Your task to perform on an android device: visit the assistant section in the google photos Image 0: 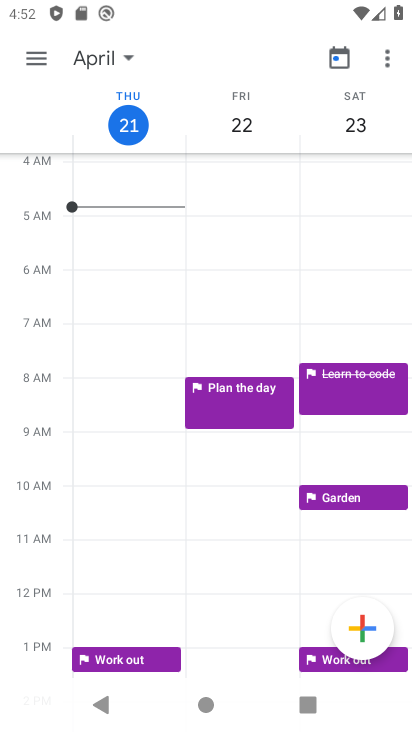
Step 0: press home button
Your task to perform on an android device: visit the assistant section in the google photos Image 1: 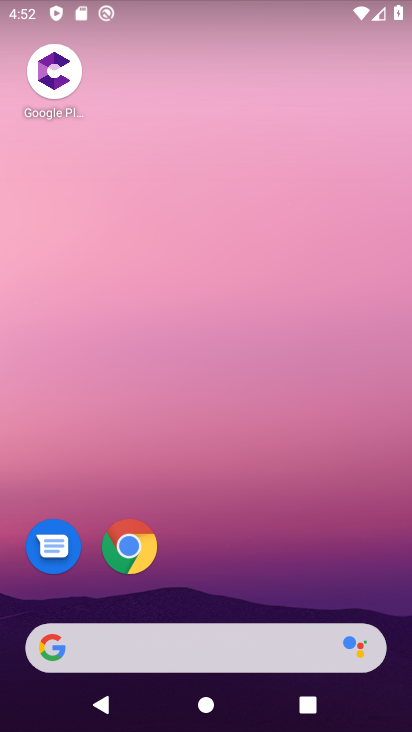
Step 1: drag from (278, 579) to (275, 104)
Your task to perform on an android device: visit the assistant section in the google photos Image 2: 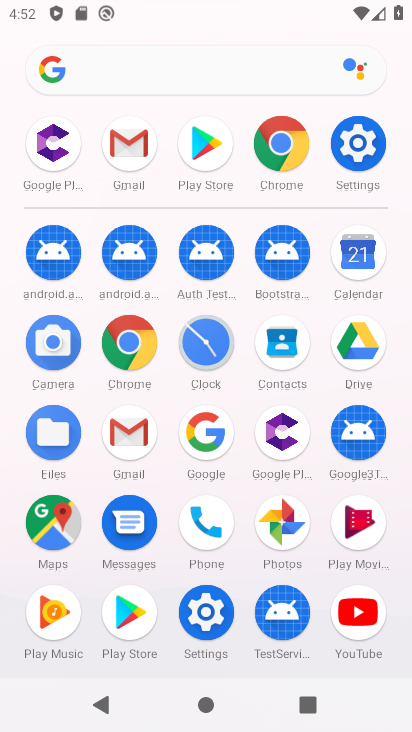
Step 2: click (285, 525)
Your task to perform on an android device: visit the assistant section in the google photos Image 3: 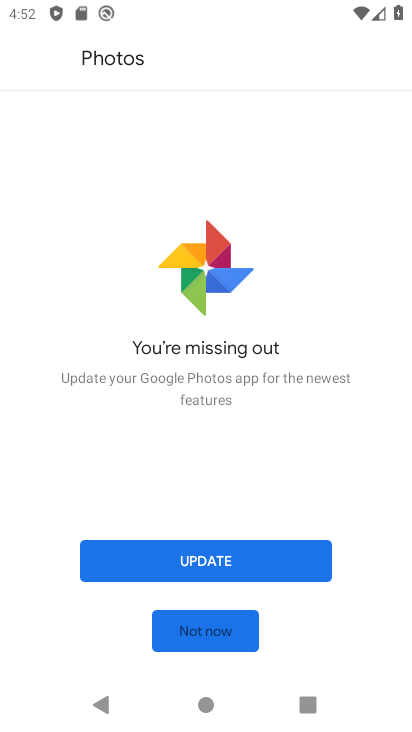
Step 3: click (211, 551)
Your task to perform on an android device: visit the assistant section in the google photos Image 4: 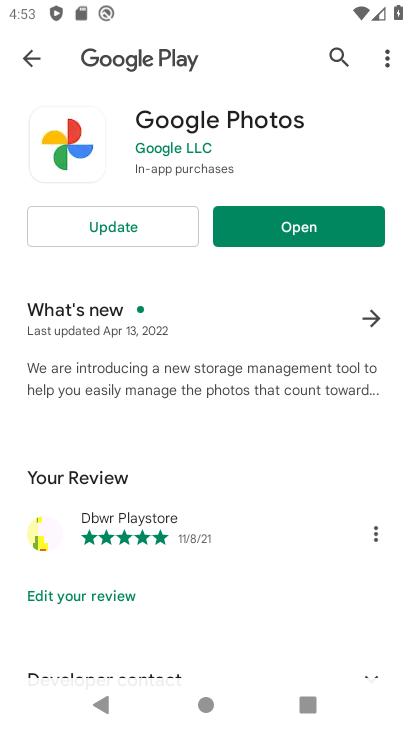
Step 4: click (154, 230)
Your task to perform on an android device: visit the assistant section in the google photos Image 5: 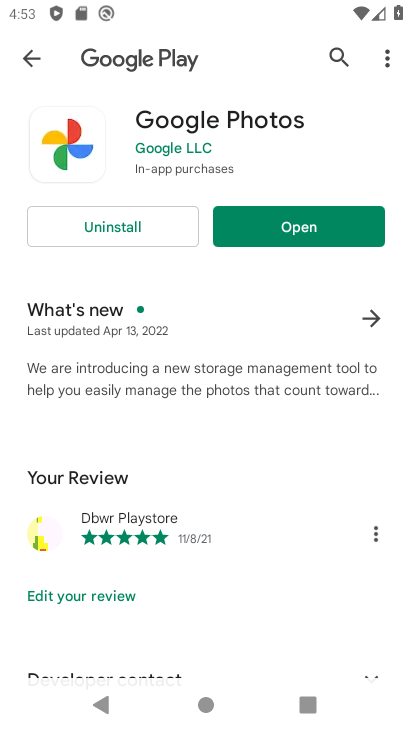
Step 5: click (251, 221)
Your task to perform on an android device: visit the assistant section in the google photos Image 6: 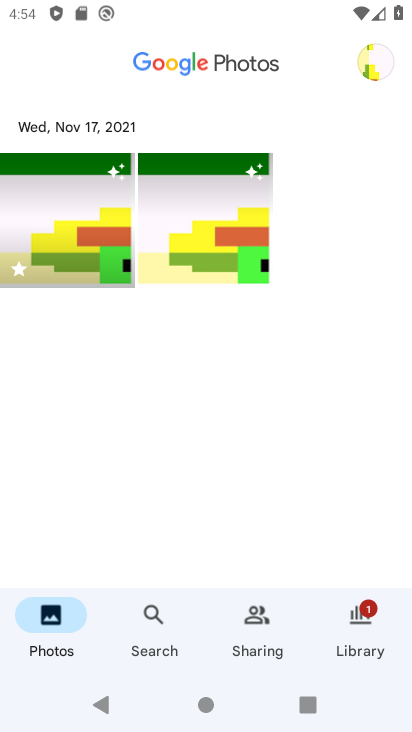
Step 6: click (368, 629)
Your task to perform on an android device: visit the assistant section in the google photos Image 7: 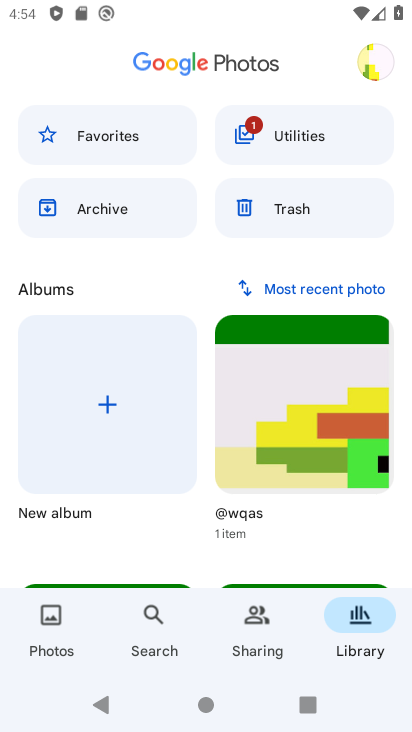
Step 7: click (54, 616)
Your task to perform on an android device: visit the assistant section in the google photos Image 8: 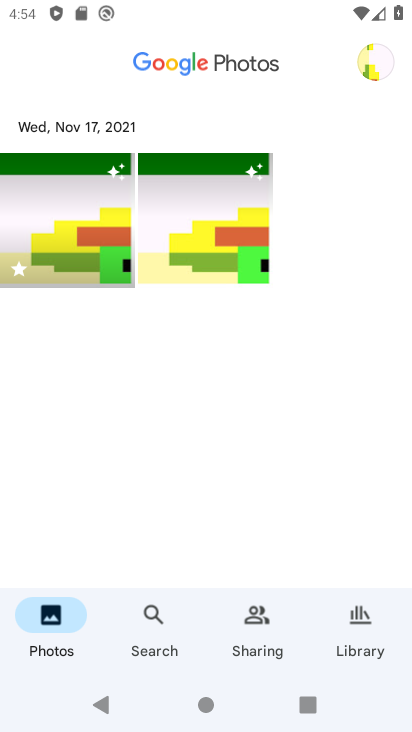
Step 8: click (221, 59)
Your task to perform on an android device: visit the assistant section in the google photos Image 9: 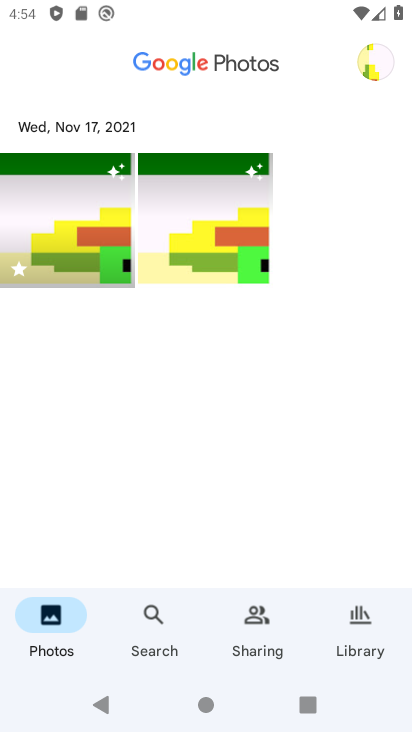
Step 9: click (148, 622)
Your task to perform on an android device: visit the assistant section in the google photos Image 10: 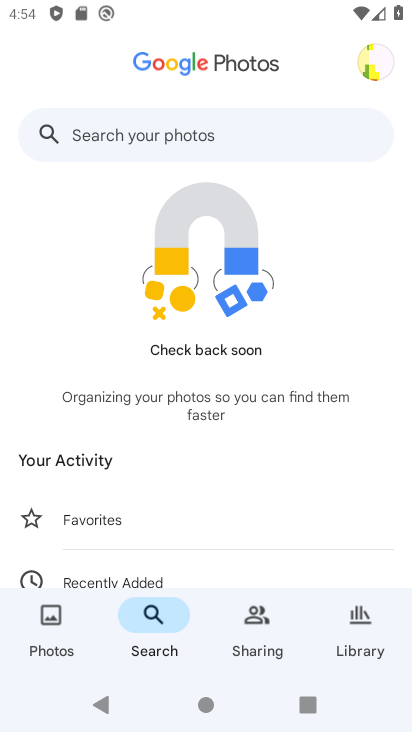
Step 10: drag from (235, 503) to (263, 249)
Your task to perform on an android device: visit the assistant section in the google photos Image 11: 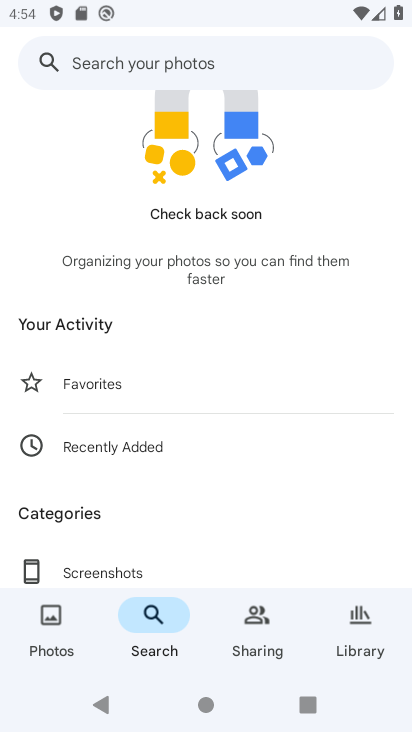
Step 11: drag from (228, 496) to (242, 287)
Your task to perform on an android device: visit the assistant section in the google photos Image 12: 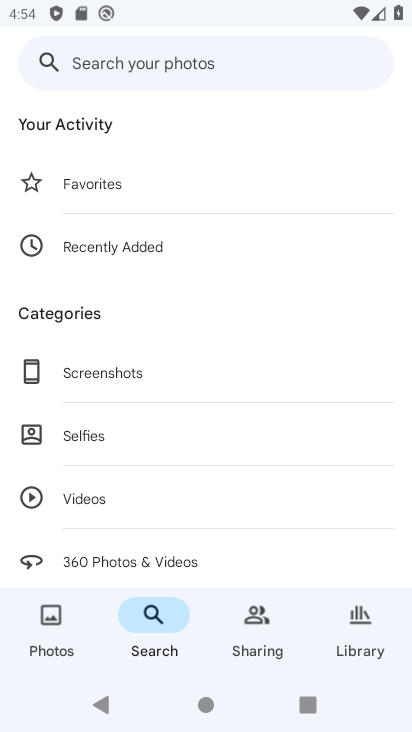
Step 12: drag from (203, 512) to (228, 243)
Your task to perform on an android device: visit the assistant section in the google photos Image 13: 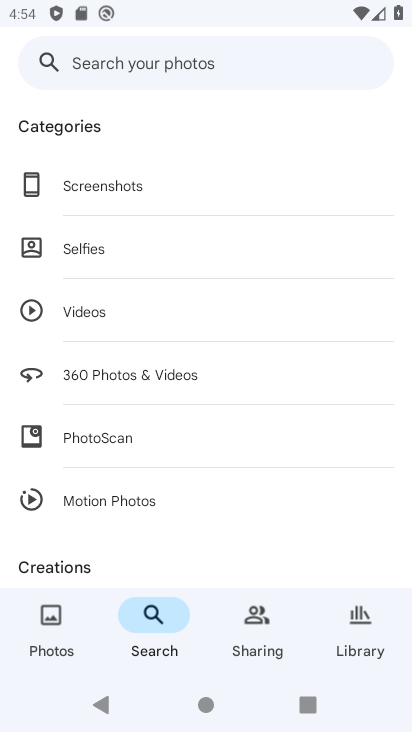
Step 13: drag from (206, 518) to (220, 292)
Your task to perform on an android device: visit the assistant section in the google photos Image 14: 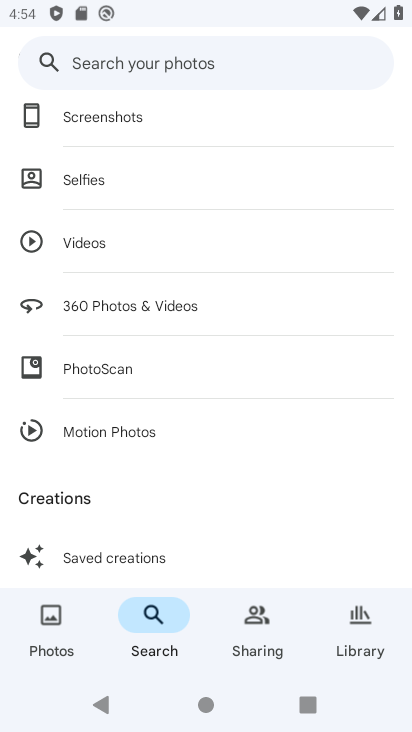
Step 14: drag from (213, 512) to (251, 211)
Your task to perform on an android device: visit the assistant section in the google photos Image 15: 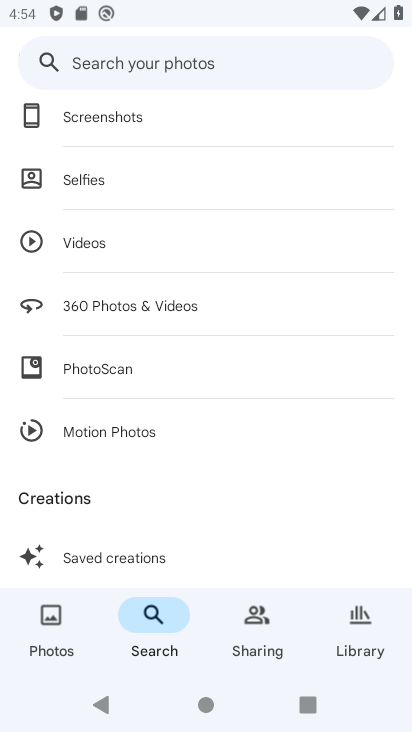
Step 15: drag from (256, 204) to (265, 530)
Your task to perform on an android device: visit the assistant section in the google photos Image 16: 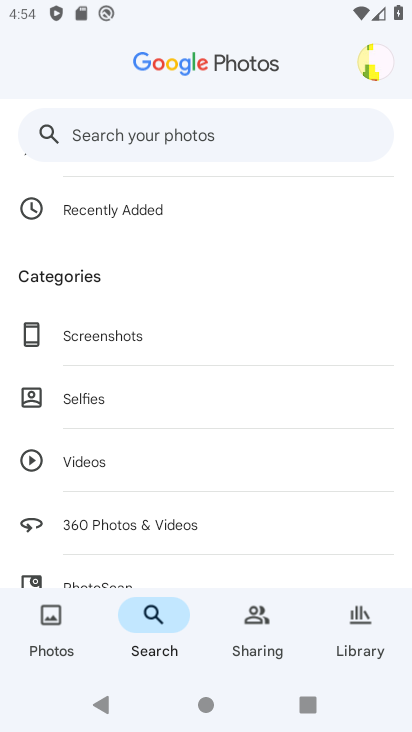
Step 16: drag from (236, 207) to (239, 543)
Your task to perform on an android device: visit the assistant section in the google photos Image 17: 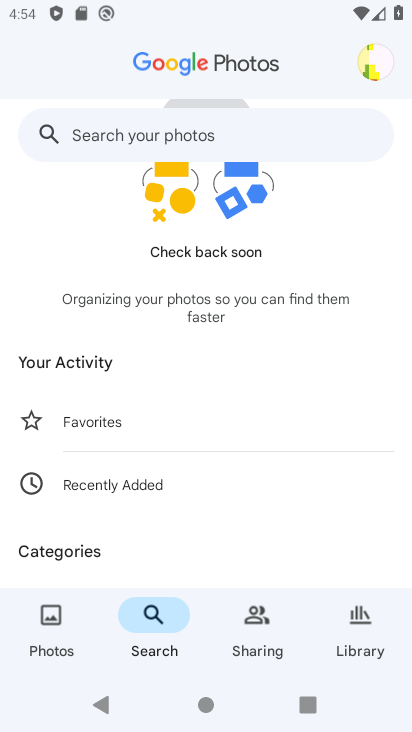
Step 17: click (168, 134)
Your task to perform on an android device: visit the assistant section in the google photos Image 18: 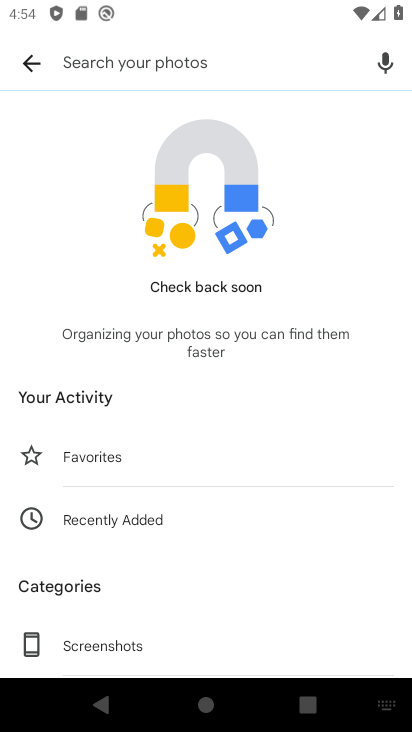
Step 18: type "assistant"
Your task to perform on an android device: visit the assistant section in the google photos Image 19: 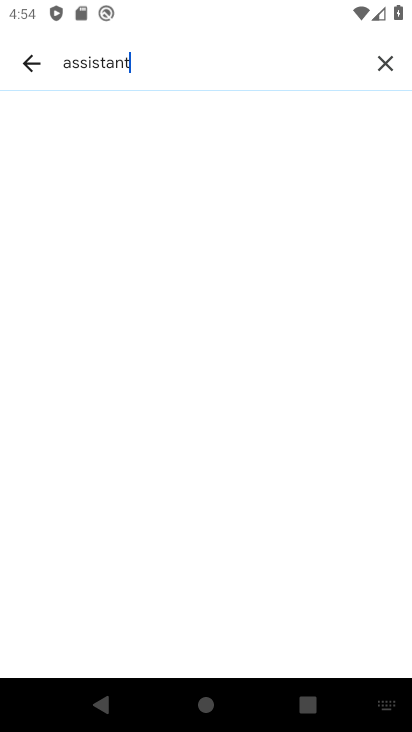
Step 19: task complete